Your task to perform on an android device: Open Reddit.com Image 0: 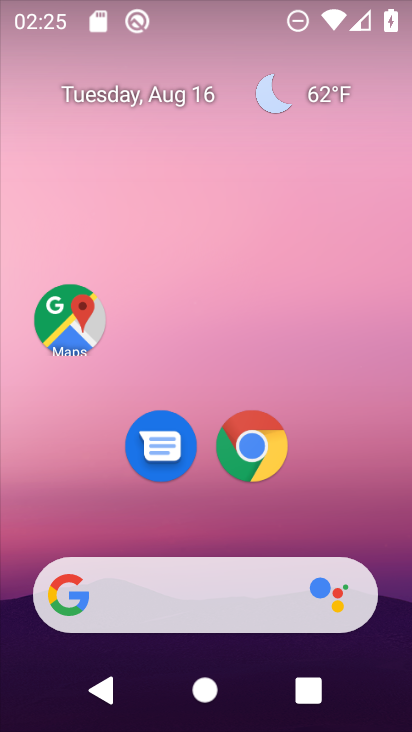
Step 0: press home button
Your task to perform on an android device: Open Reddit.com Image 1: 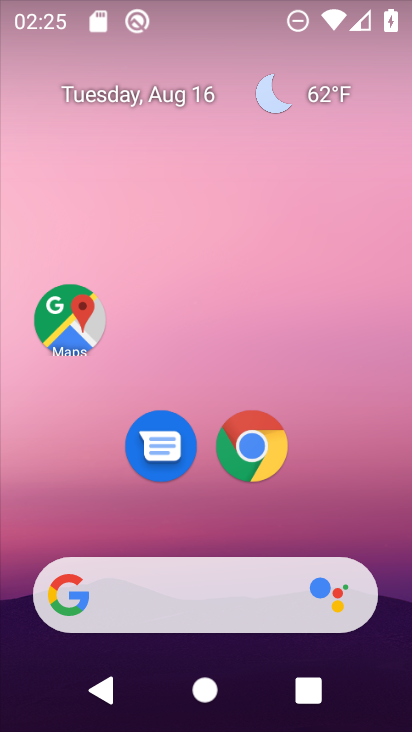
Step 1: drag from (241, 14) to (265, 451)
Your task to perform on an android device: Open Reddit.com Image 2: 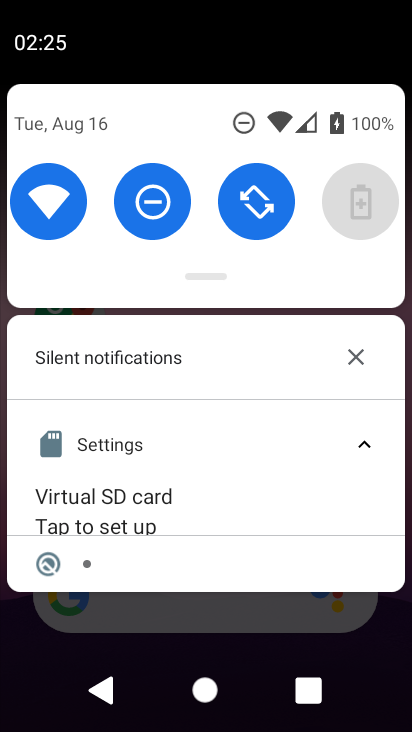
Step 2: press back button
Your task to perform on an android device: Open Reddit.com Image 3: 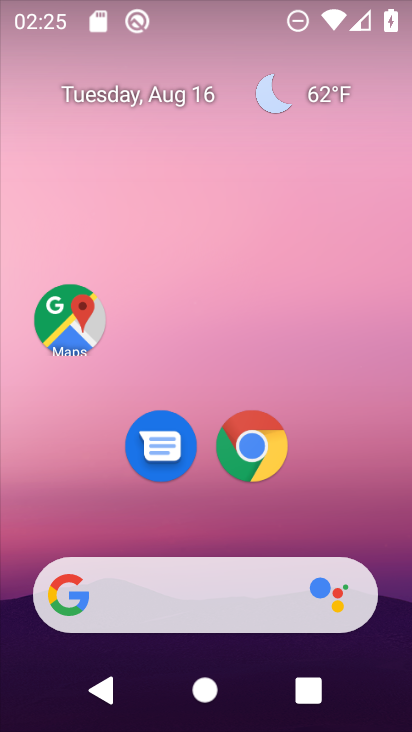
Step 3: drag from (210, 525) to (212, 33)
Your task to perform on an android device: Open Reddit.com Image 4: 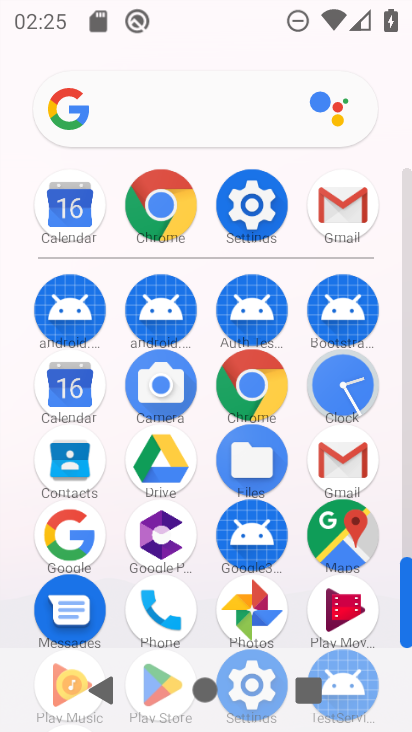
Step 4: click (156, 199)
Your task to perform on an android device: Open Reddit.com Image 5: 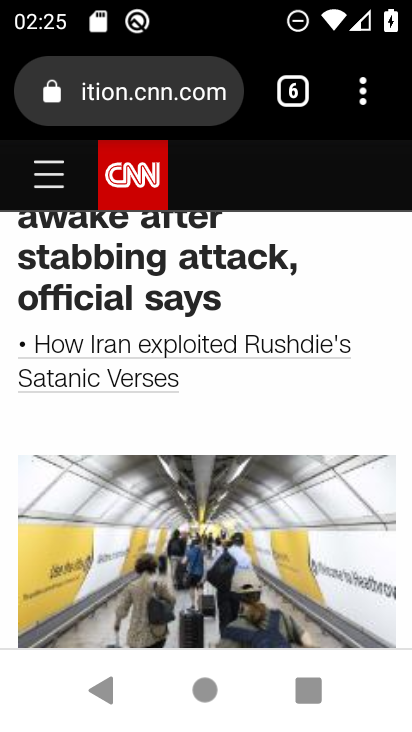
Step 5: click (293, 87)
Your task to perform on an android device: Open Reddit.com Image 6: 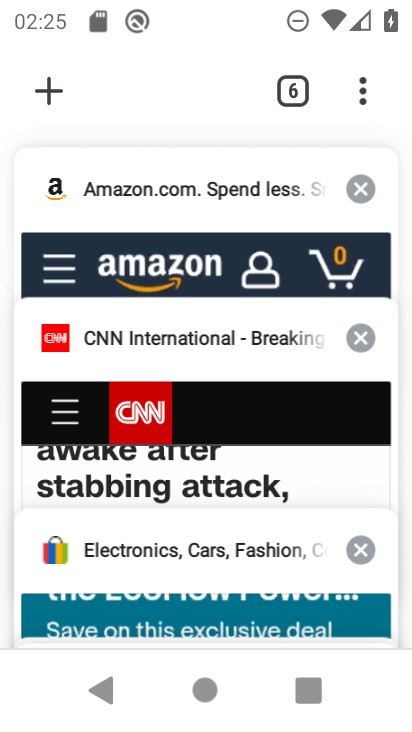
Step 6: click (40, 87)
Your task to perform on an android device: Open Reddit.com Image 7: 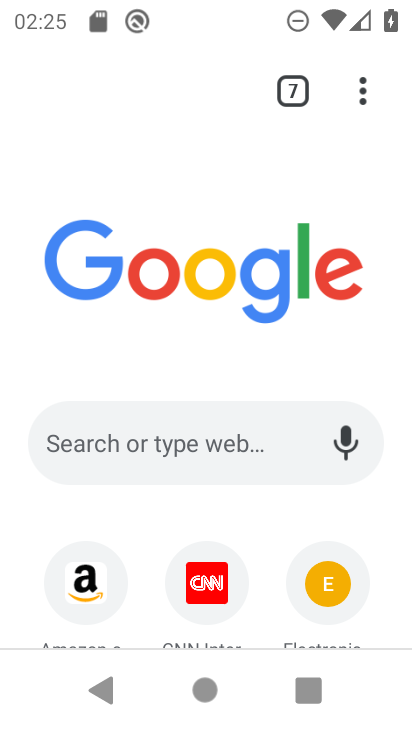
Step 7: click (132, 432)
Your task to perform on an android device: Open Reddit.com Image 8: 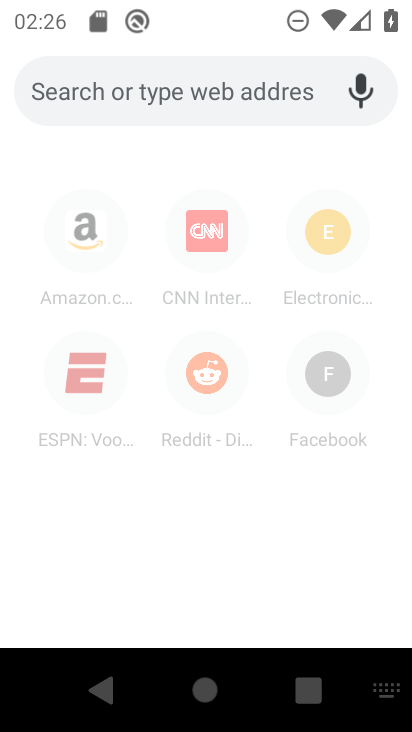
Step 8: type "reddit.com"
Your task to perform on an android device: Open Reddit.com Image 9: 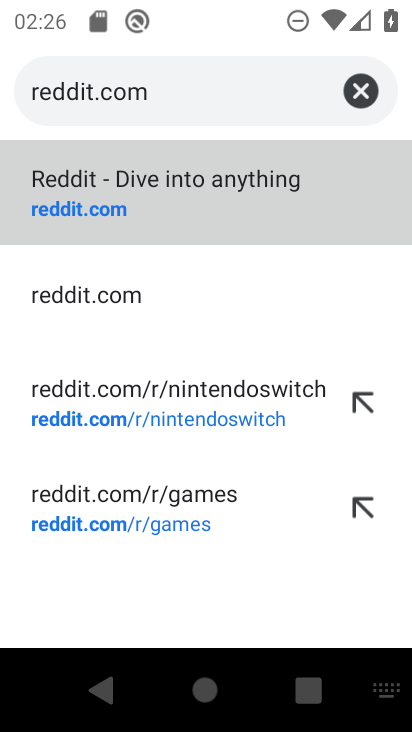
Step 9: click (149, 210)
Your task to perform on an android device: Open Reddit.com Image 10: 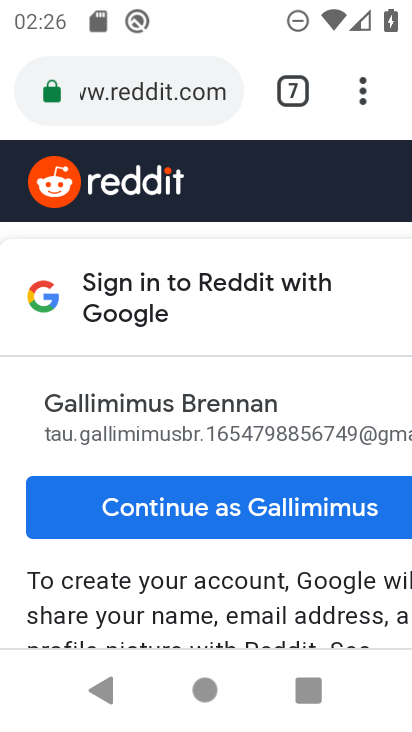
Step 10: click (226, 501)
Your task to perform on an android device: Open Reddit.com Image 11: 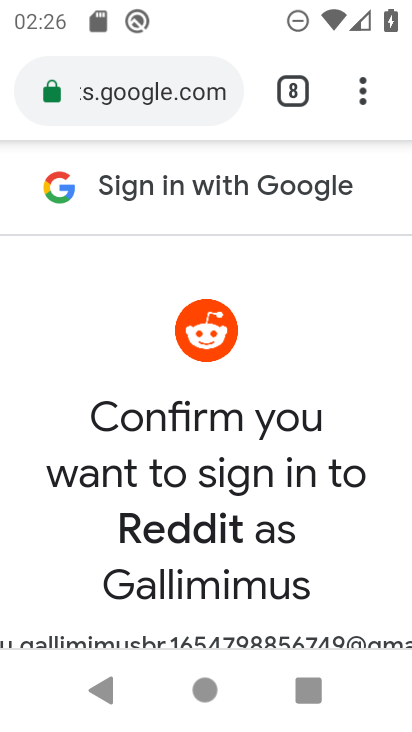
Step 11: drag from (226, 568) to (227, 171)
Your task to perform on an android device: Open Reddit.com Image 12: 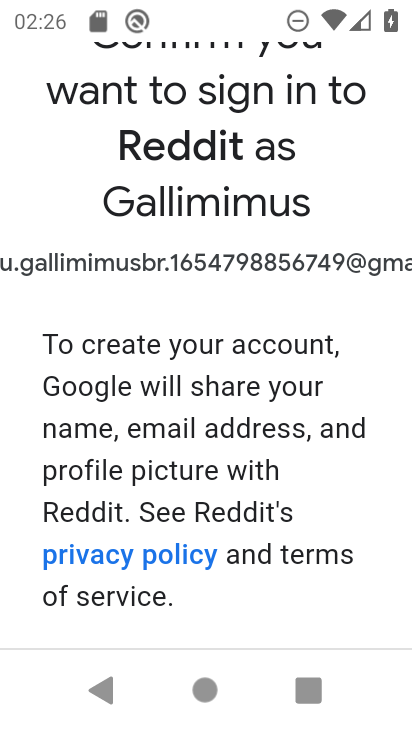
Step 12: drag from (226, 589) to (259, 103)
Your task to perform on an android device: Open Reddit.com Image 13: 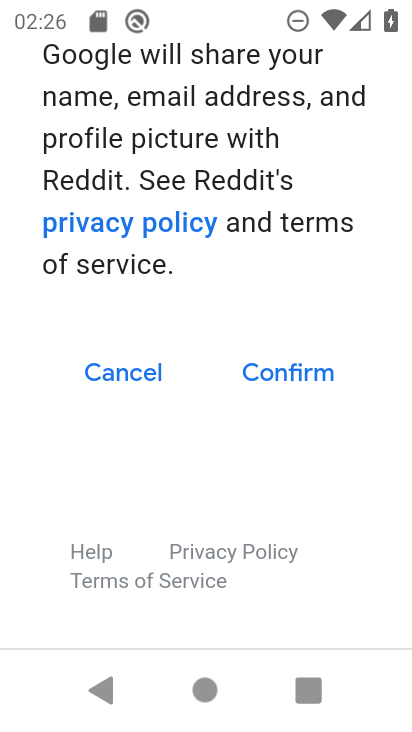
Step 13: click (286, 551)
Your task to perform on an android device: Open Reddit.com Image 14: 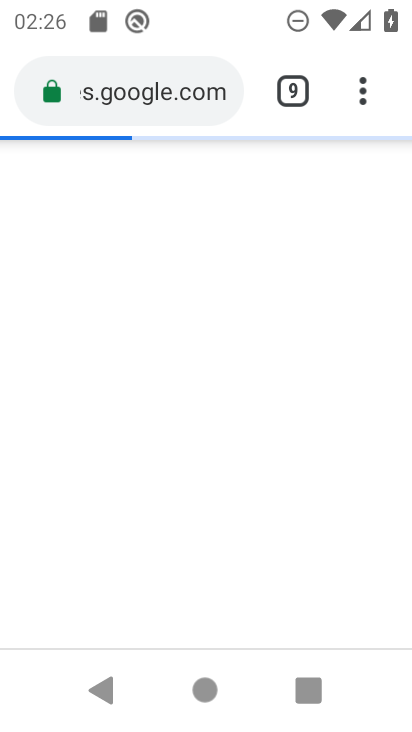
Step 14: click (266, 388)
Your task to perform on an android device: Open Reddit.com Image 15: 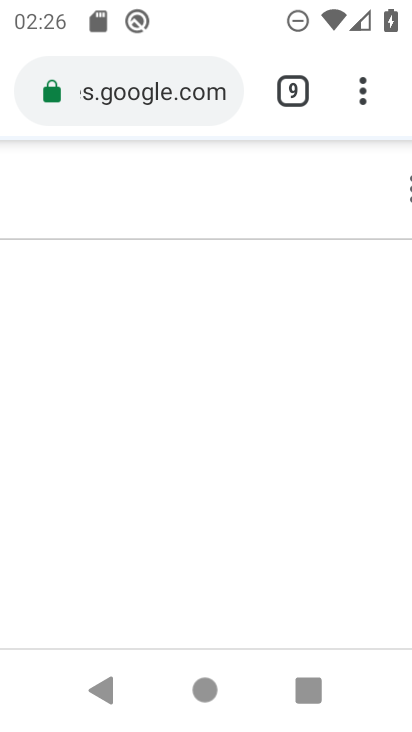
Step 15: task complete